Your task to perform on an android device: make emails show in primary in the gmail app Image 0: 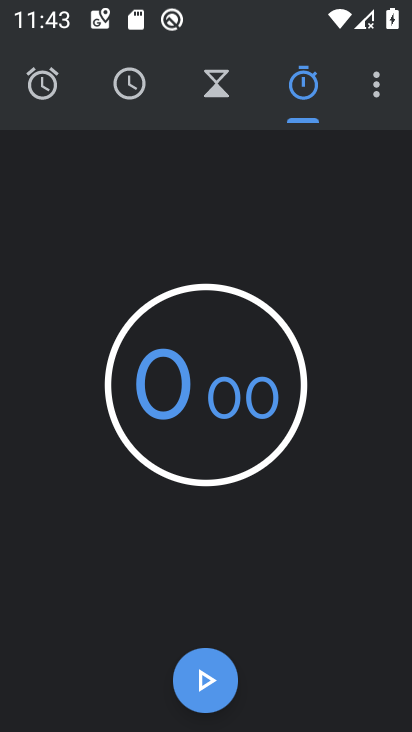
Step 0: press home button
Your task to perform on an android device: make emails show in primary in the gmail app Image 1: 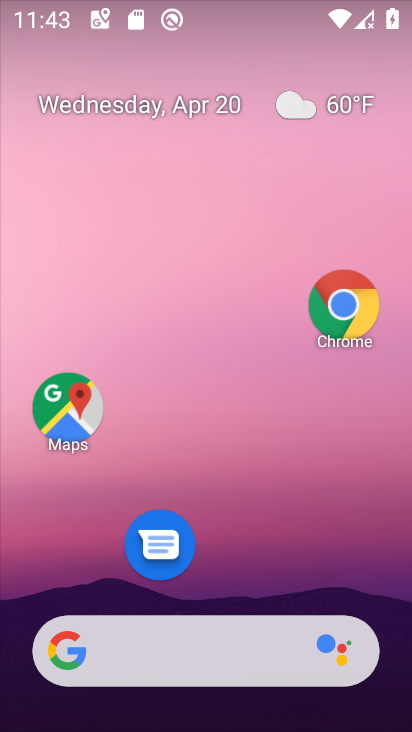
Step 1: drag from (210, 636) to (223, 143)
Your task to perform on an android device: make emails show in primary in the gmail app Image 2: 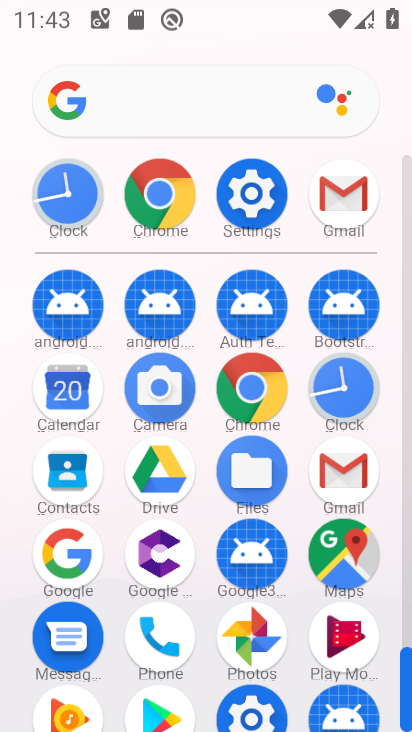
Step 2: click (340, 458)
Your task to perform on an android device: make emails show in primary in the gmail app Image 3: 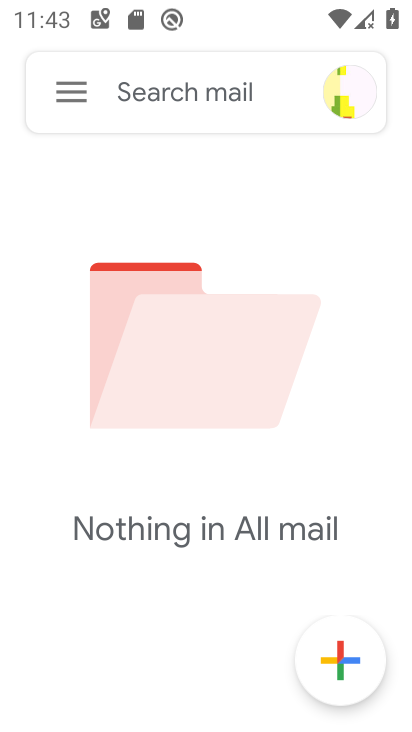
Step 3: click (67, 92)
Your task to perform on an android device: make emails show in primary in the gmail app Image 4: 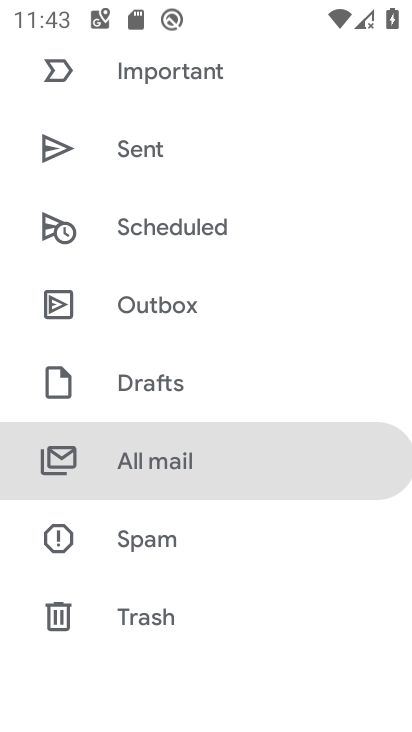
Step 4: click (185, 468)
Your task to perform on an android device: make emails show in primary in the gmail app Image 5: 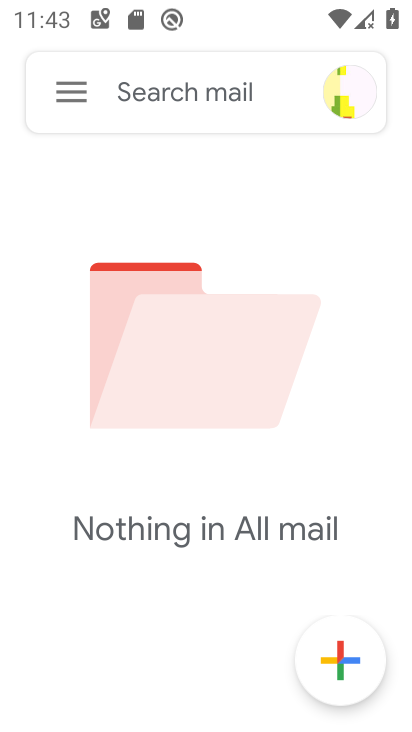
Step 5: task complete